Your task to perform on an android device: move an email to a new category in the gmail app Image 0: 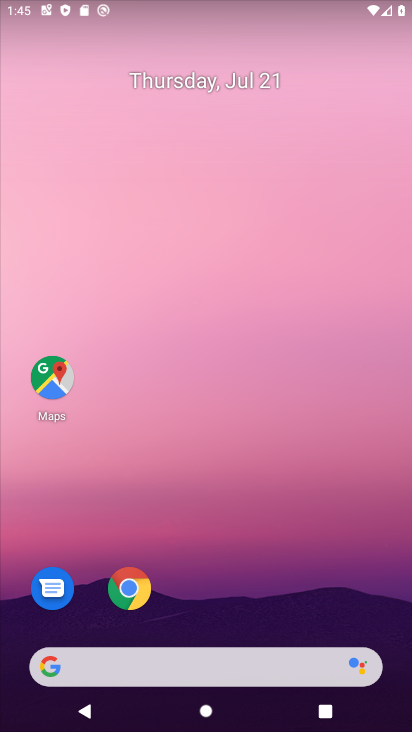
Step 0: press home button
Your task to perform on an android device: move an email to a new category in the gmail app Image 1: 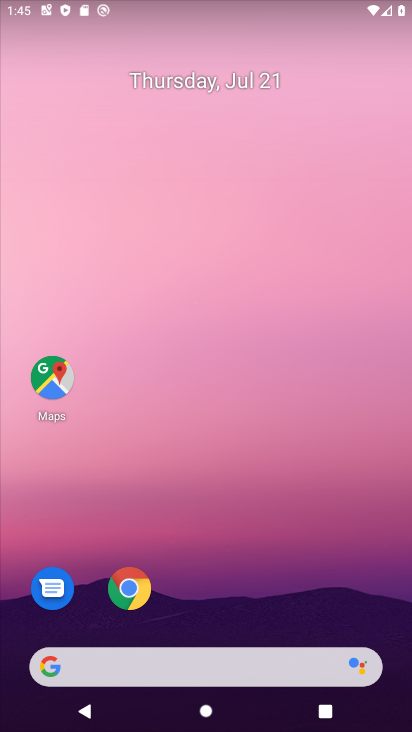
Step 1: drag from (237, 618) to (240, 16)
Your task to perform on an android device: move an email to a new category in the gmail app Image 2: 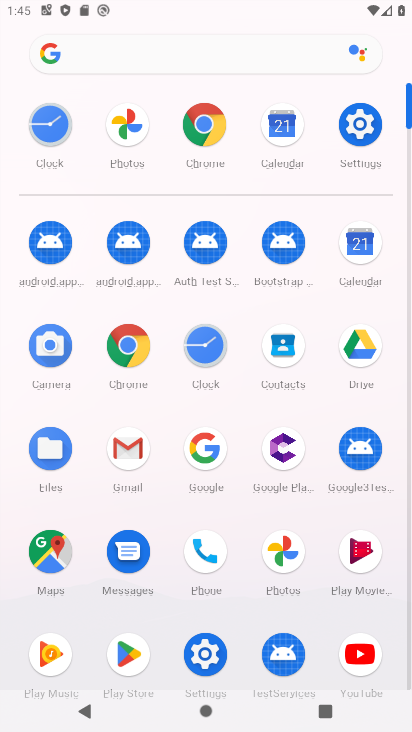
Step 2: click (145, 493)
Your task to perform on an android device: move an email to a new category in the gmail app Image 3: 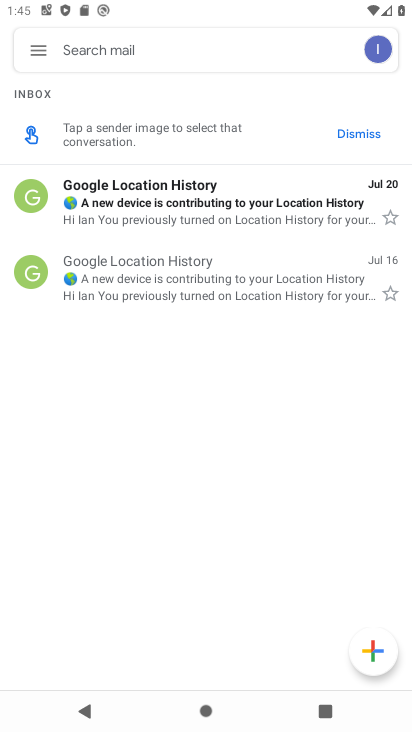
Step 3: click (125, 200)
Your task to perform on an android device: move an email to a new category in the gmail app Image 4: 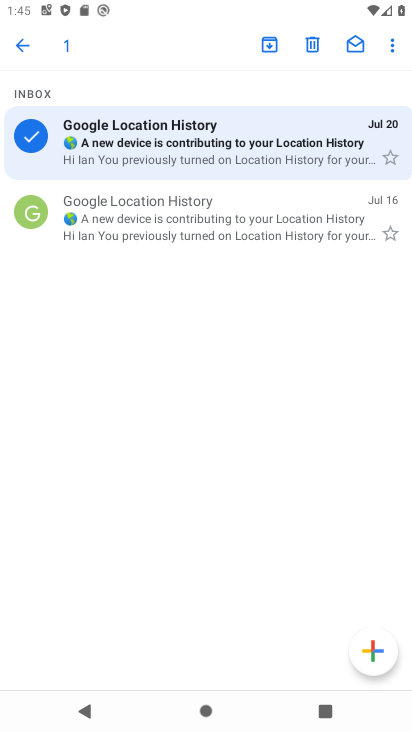
Step 4: click (388, 44)
Your task to perform on an android device: move an email to a new category in the gmail app Image 5: 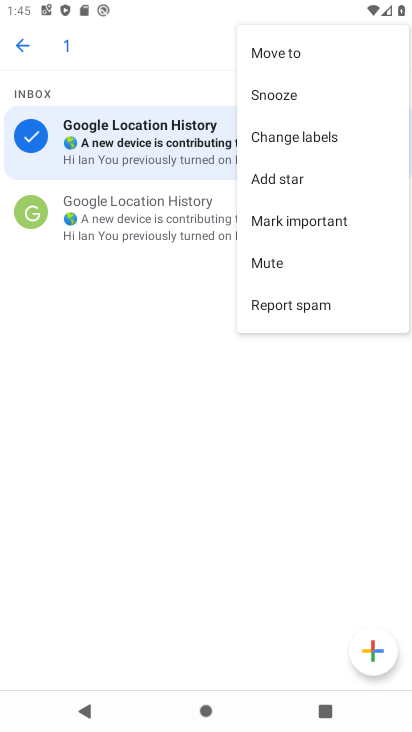
Step 5: click (293, 59)
Your task to perform on an android device: move an email to a new category in the gmail app Image 6: 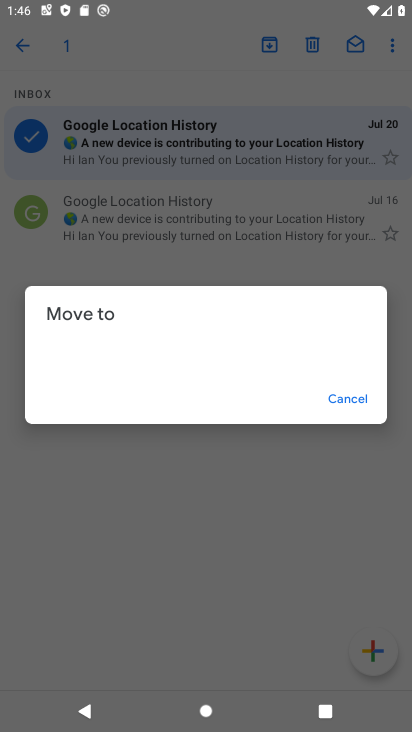
Step 6: task complete